Your task to perform on an android device: empty trash in google photos Image 0: 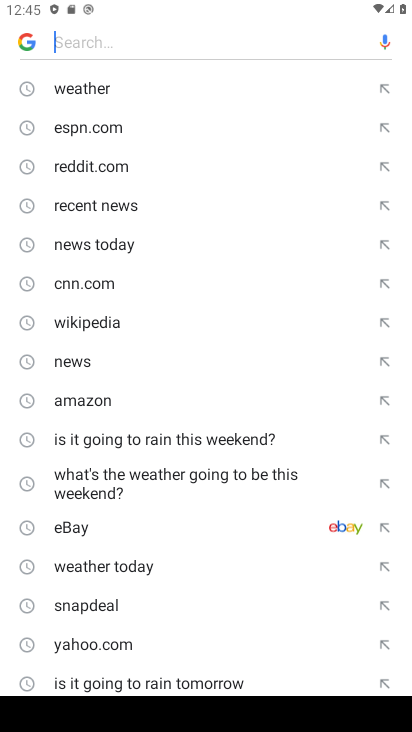
Step 0: press home button
Your task to perform on an android device: empty trash in google photos Image 1: 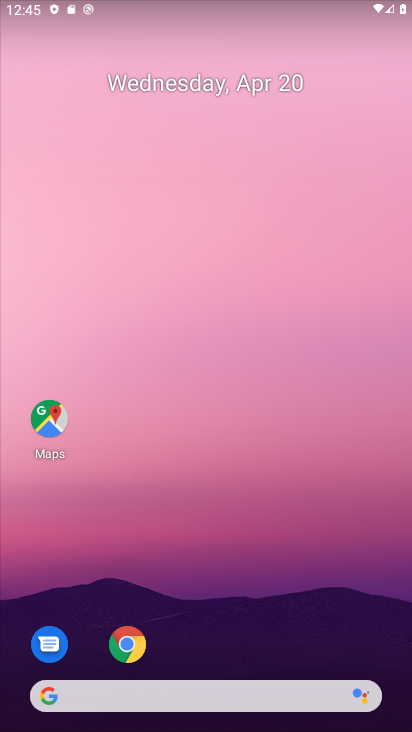
Step 1: drag from (301, 645) to (320, 0)
Your task to perform on an android device: empty trash in google photos Image 2: 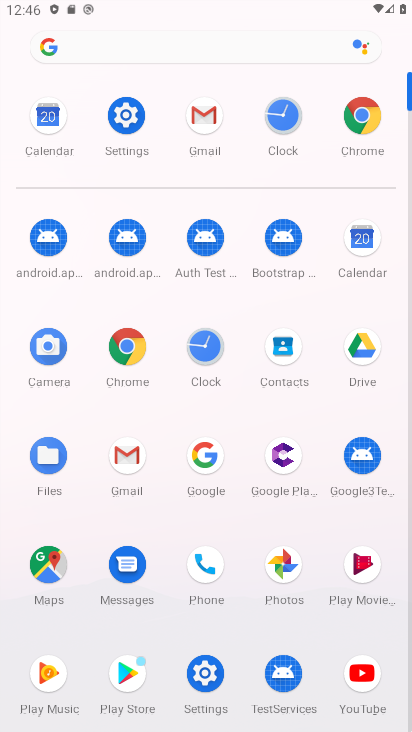
Step 2: click (287, 565)
Your task to perform on an android device: empty trash in google photos Image 3: 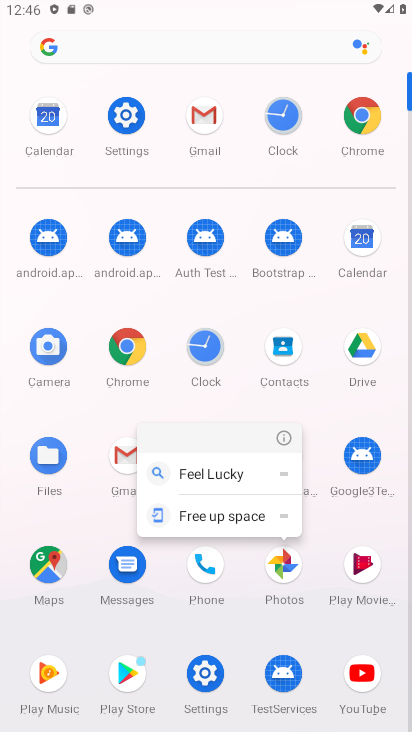
Step 3: click (287, 565)
Your task to perform on an android device: empty trash in google photos Image 4: 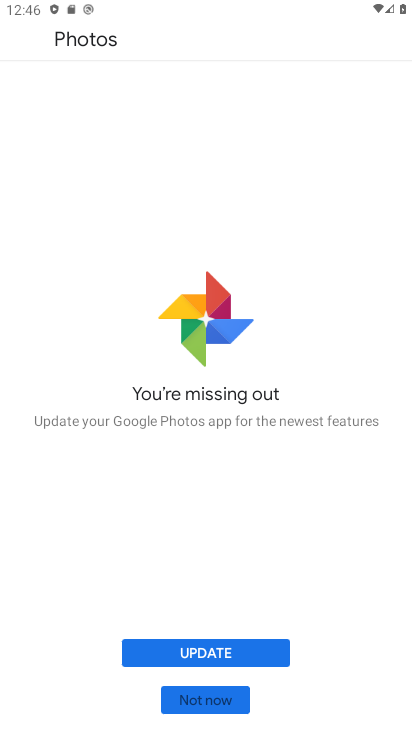
Step 4: click (235, 697)
Your task to perform on an android device: empty trash in google photos Image 5: 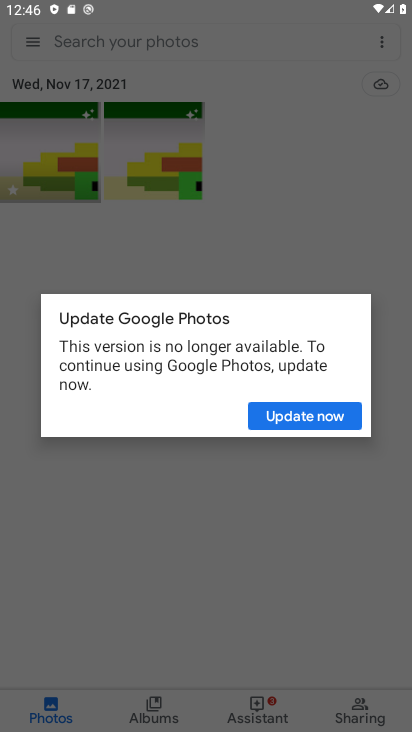
Step 5: click (318, 412)
Your task to perform on an android device: empty trash in google photos Image 6: 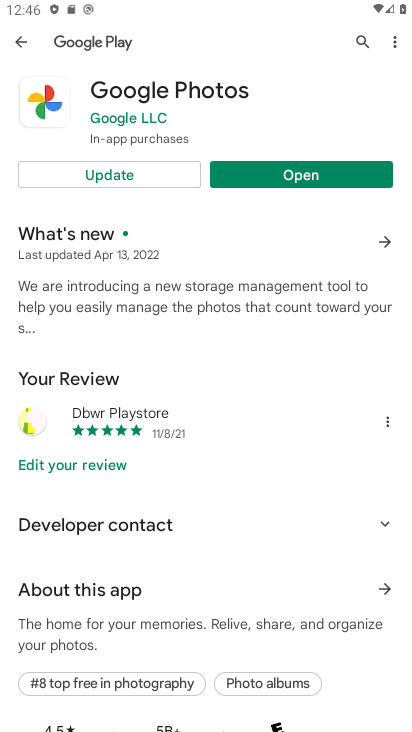
Step 6: click (178, 172)
Your task to perform on an android device: empty trash in google photos Image 7: 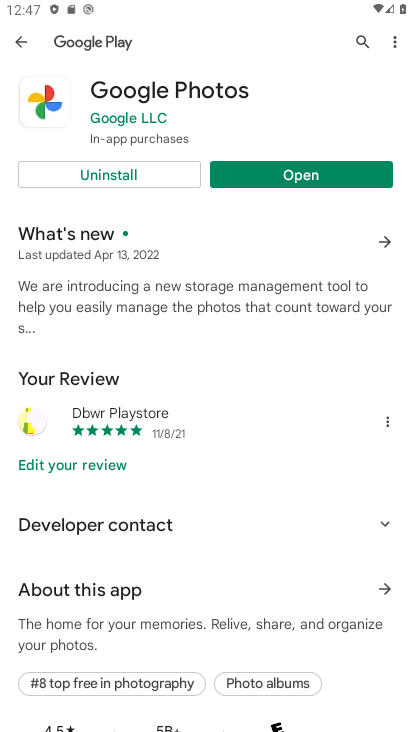
Step 7: click (229, 172)
Your task to perform on an android device: empty trash in google photos Image 8: 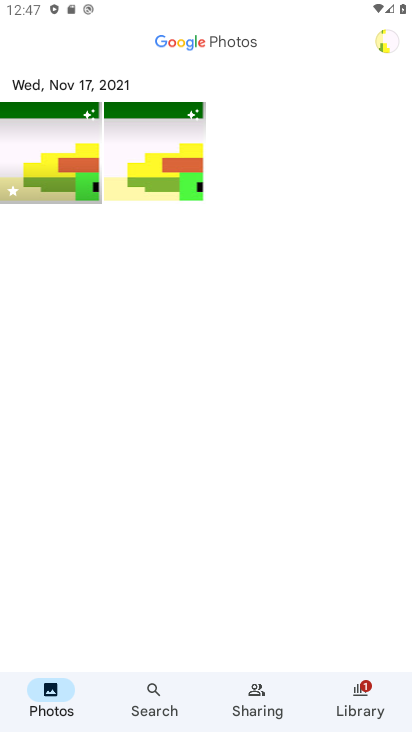
Step 8: click (392, 34)
Your task to perform on an android device: empty trash in google photos Image 9: 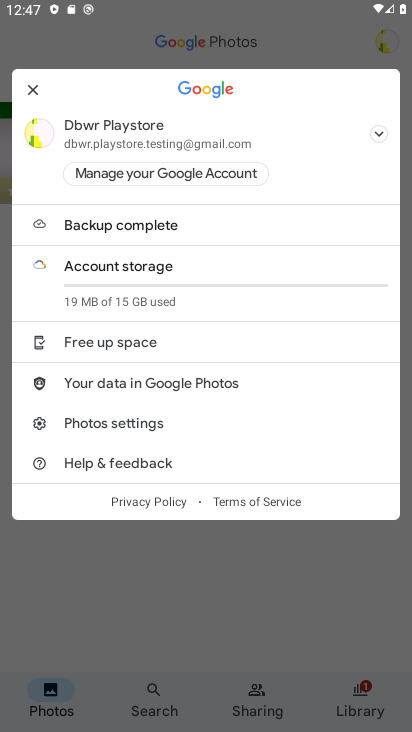
Step 9: click (183, 339)
Your task to perform on an android device: empty trash in google photos Image 10: 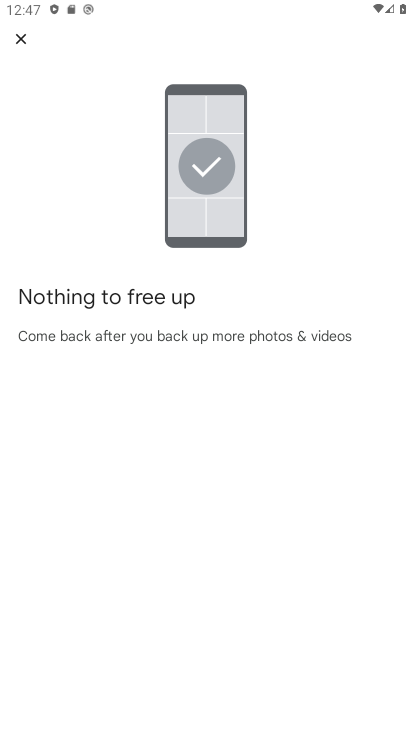
Step 10: click (23, 37)
Your task to perform on an android device: empty trash in google photos Image 11: 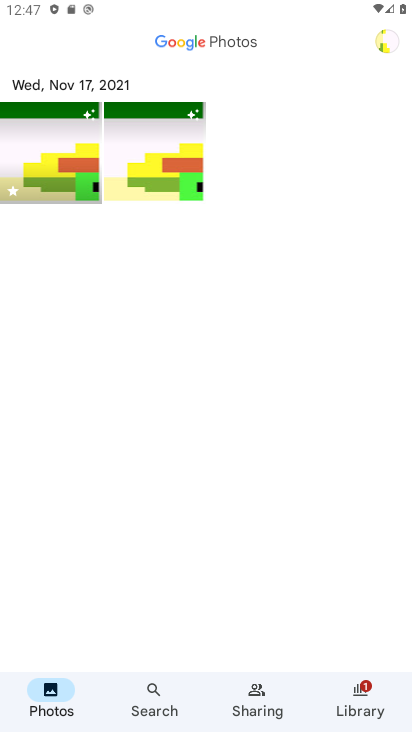
Step 11: click (155, 694)
Your task to perform on an android device: empty trash in google photos Image 12: 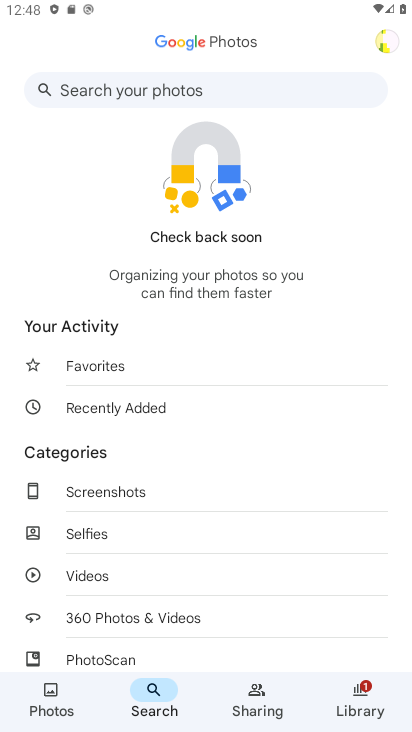
Step 12: drag from (245, 581) to (225, 180)
Your task to perform on an android device: empty trash in google photos Image 13: 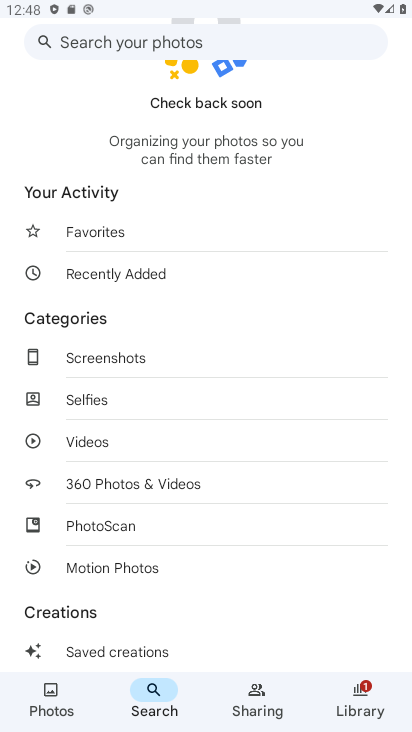
Step 13: drag from (205, 277) to (198, 637)
Your task to perform on an android device: empty trash in google photos Image 14: 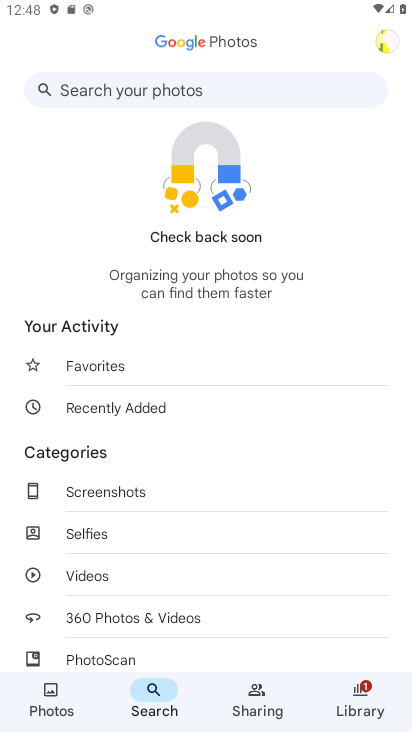
Step 14: click (48, 688)
Your task to perform on an android device: empty trash in google photos Image 15: 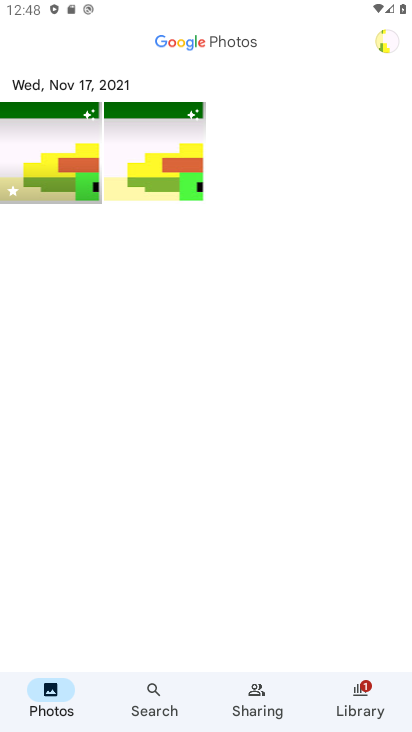
Step 15: click (40, 79)
Your task to perform on an android device: empty trash in google photos Image 16: 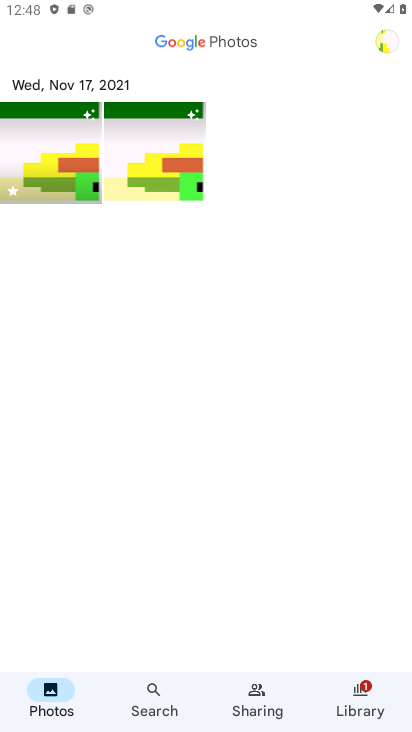
Step 16: click (39, 37)
Your task to perform on an android device: empty trash in google photos Image 17: 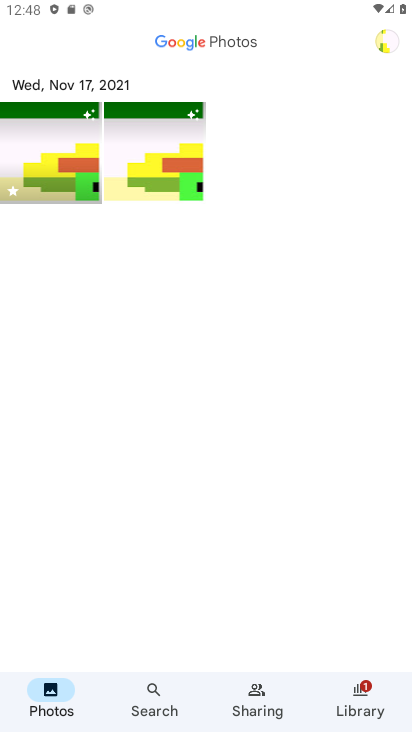
Step 17: click (177, 27)
Your task to perform on an android device: empty trash in google photos Image 18: 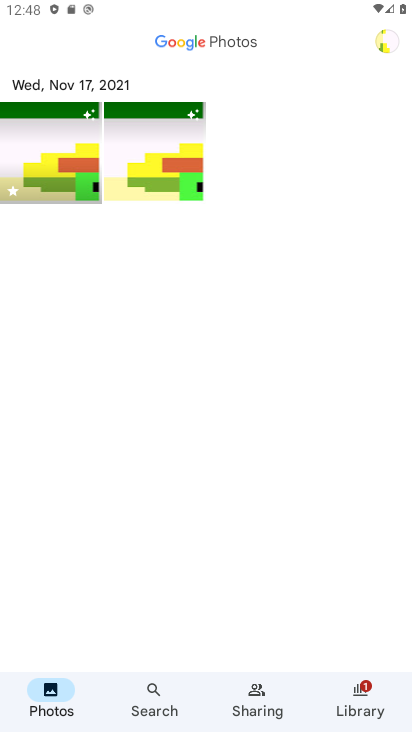
Step 18: click (227, 31)
Your task to perform on an android device: empty trash in google photos Image 19: 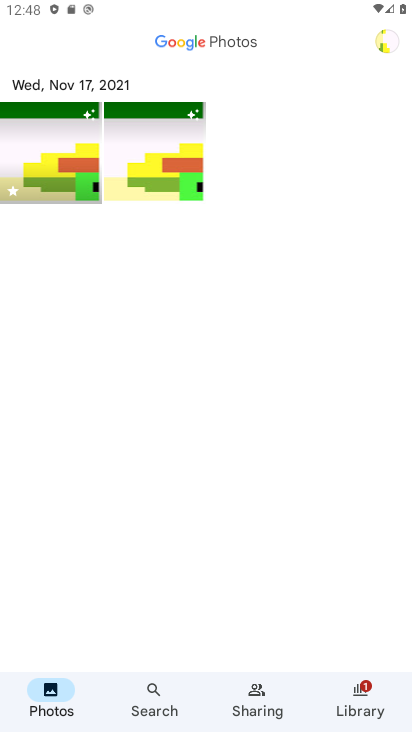
Step 19: task complete